Your task to perform on an android device: Open the stopwatch Image 0: 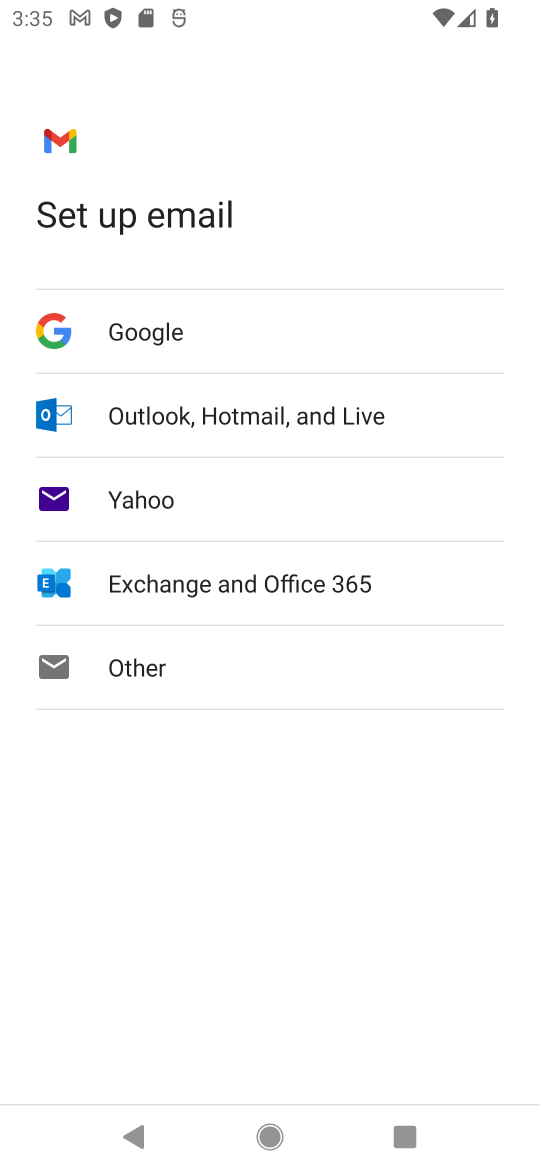
Step 0: press home button
Your task to perform on an android device: Open the stopwatch Image 1: 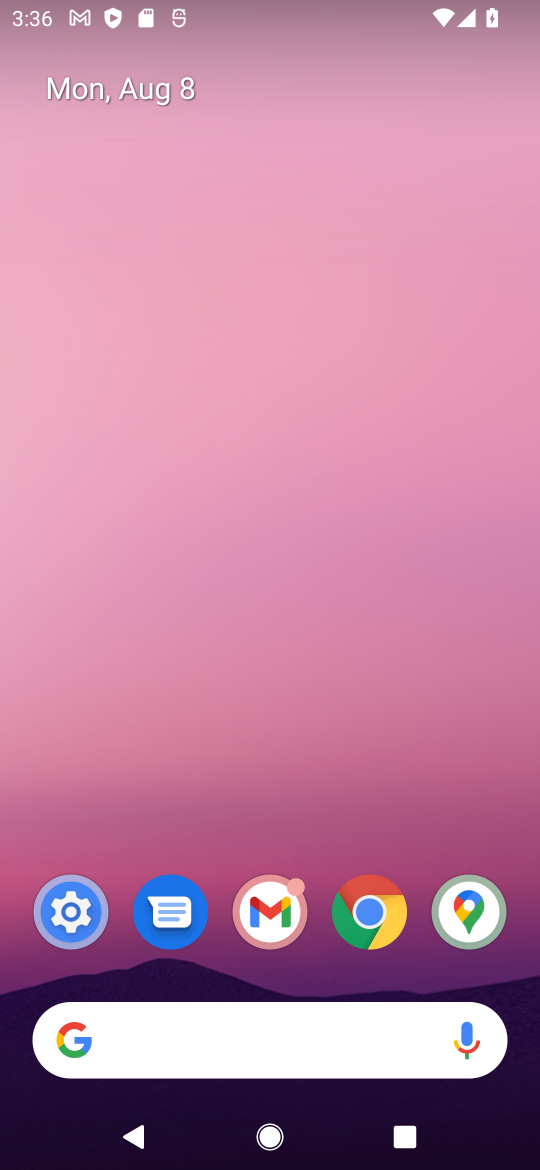
Step 1: drag from (90, 958) to (388, 78)
Your task to perform on an android device: Open the stopwatch Image 2: 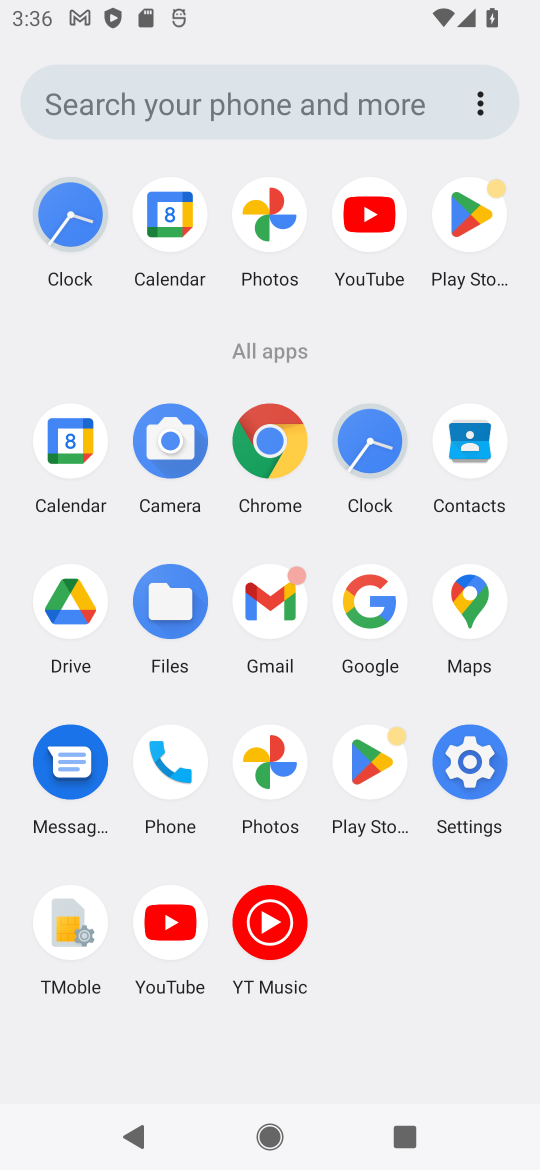
Step 2: click (372, 466)
Your task to perform on an android device: Open the stopwatch Image 3: 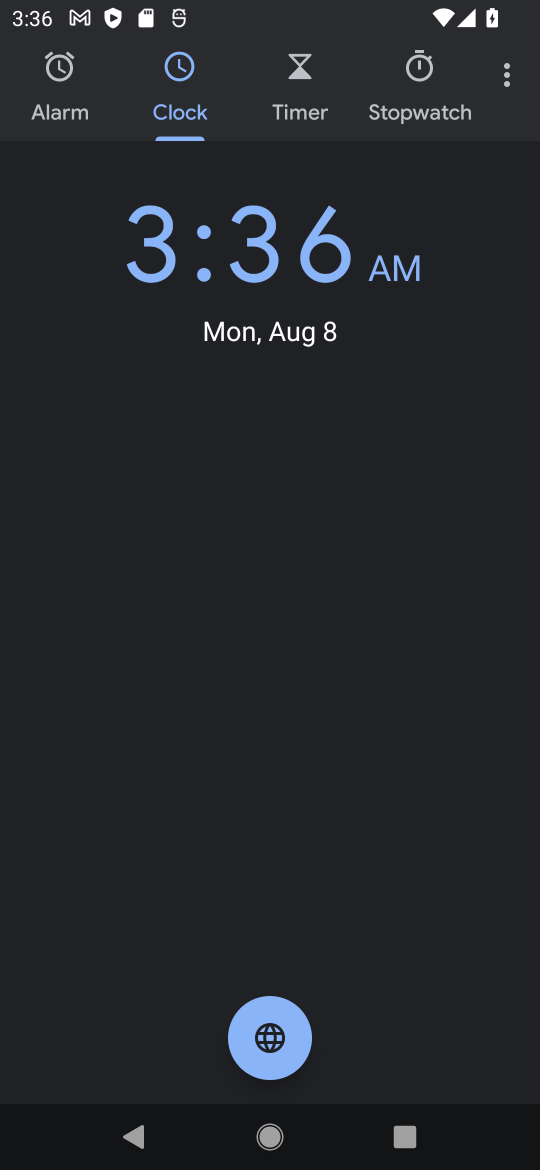
Step 3: click (420, 105)
Your task to perform on an android device: Open the stopwatch Image 4: 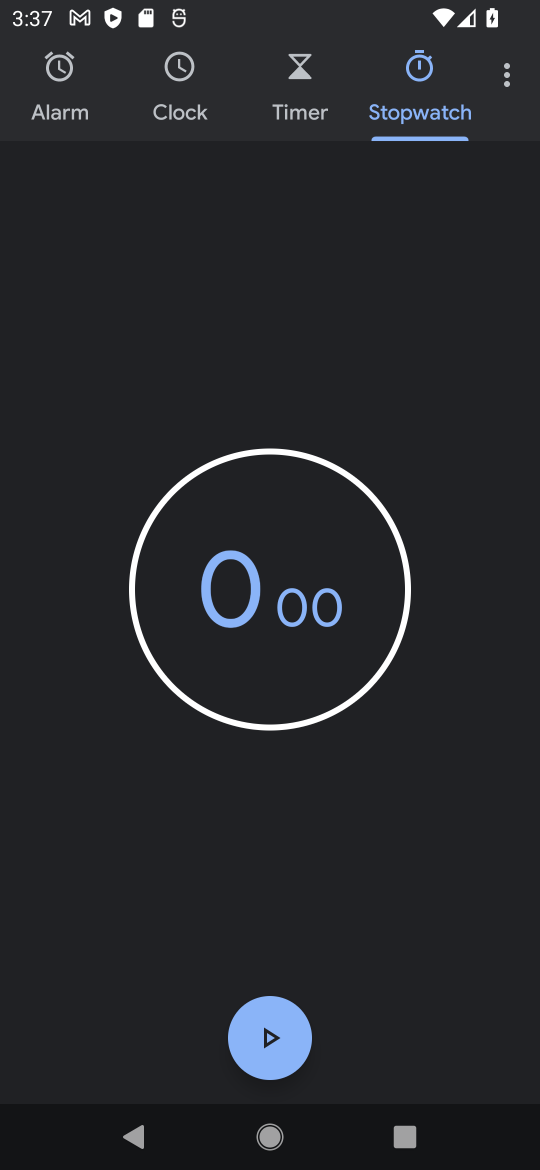
Step 4: task complete